Your task to perform on an android device: refresh tabs in the chrome app Image 0: 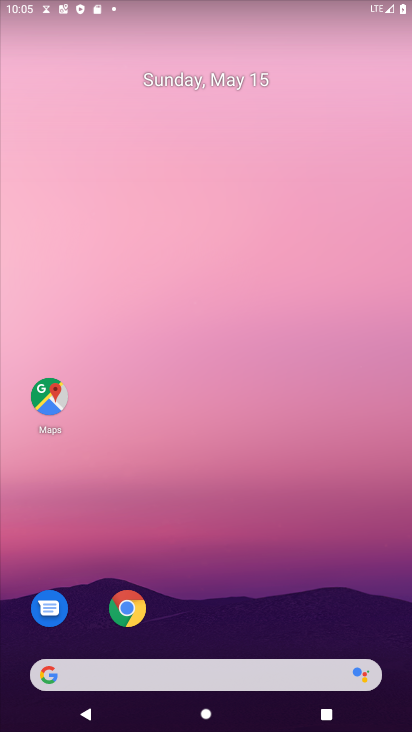
Step 0: drag from (294, 507) to (373, 90)
Your task to perform on an android device: refresh tabs in the chrome app Image 1: 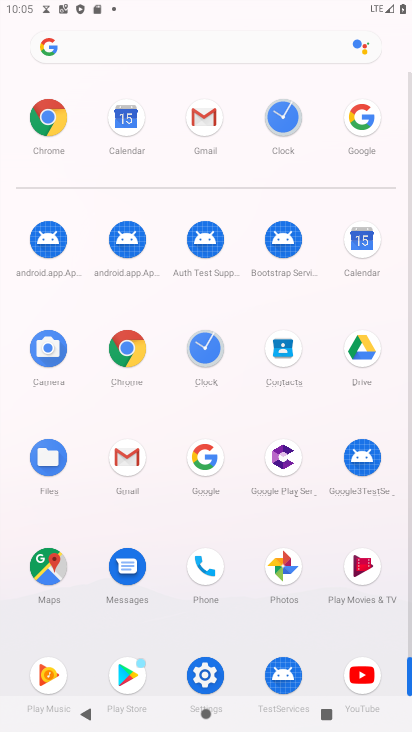
Step 1: click (43, 115)
Your task to perform on an android device: refresh tabs in the chrome app Image 2: 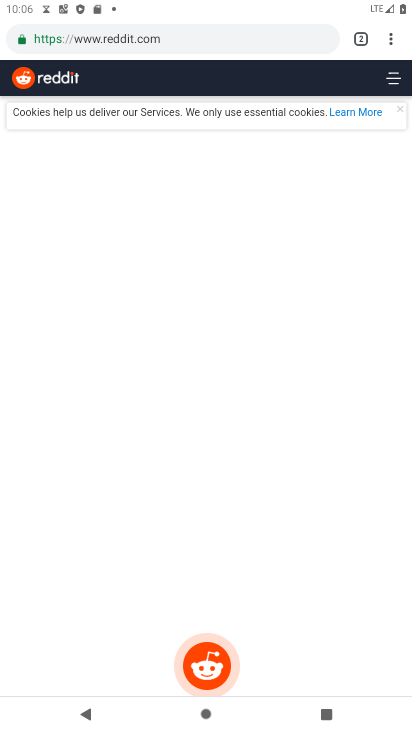
Step 2: click (396, 35)
Your task to perform on an android device: refresh tabs in the chrome app Image 3: 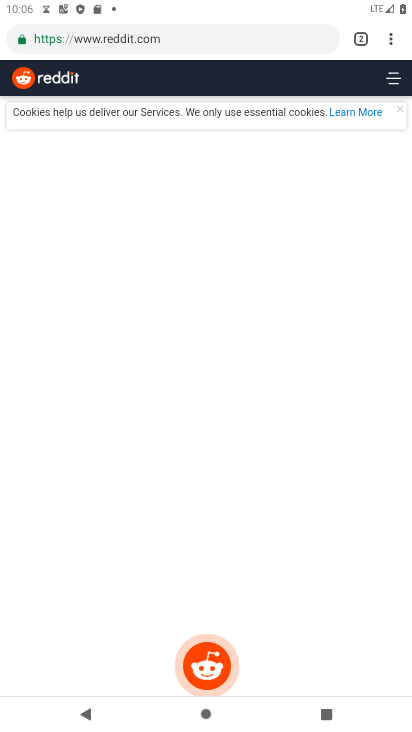
Step 3: task complete